Your task to perform on an android device: all mails in gmail Image 0: 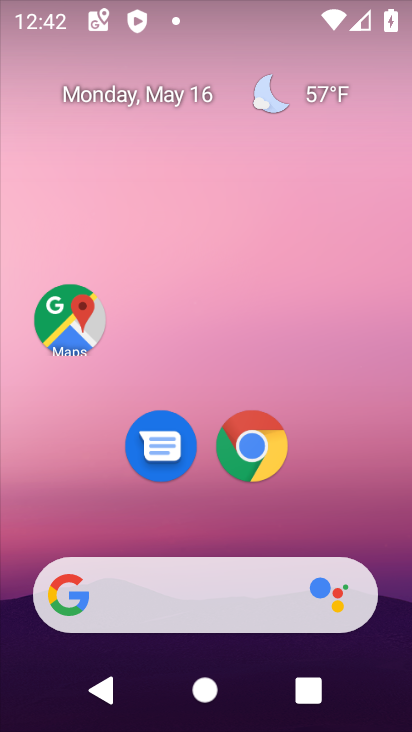
Step 0: drag from (358, 498) to (281, 226)
Your task to perform on an android device: all mails in gmail Image 1: 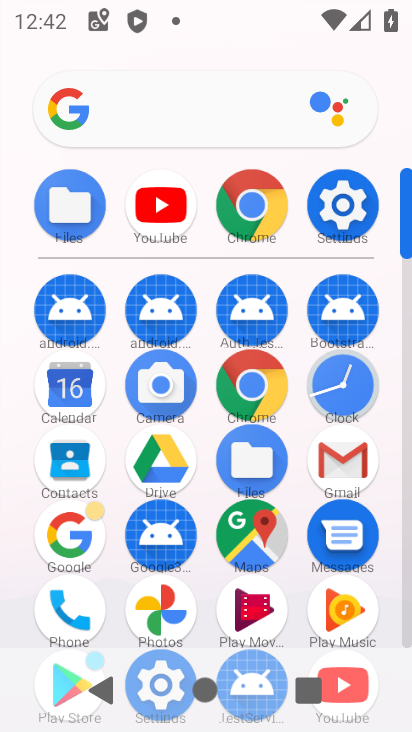
Step 1: click (339, 449)
Your task to perform on an android device: all mails in gmail Image 2: 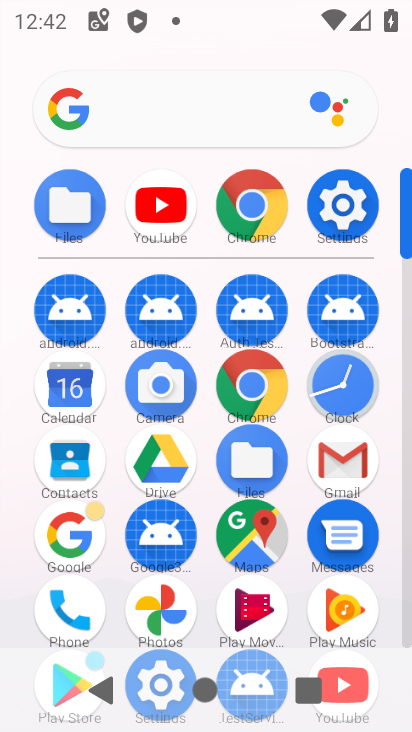
Step 2: click (339, 449)
Your task to perform on an android device: all mails in gmail Image 3: 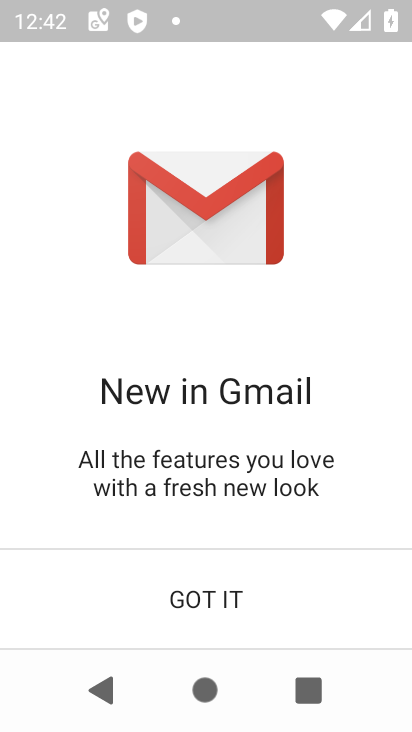
Step 3: task complete